Your task to perform on an android device: Open Google Maps Image 0: 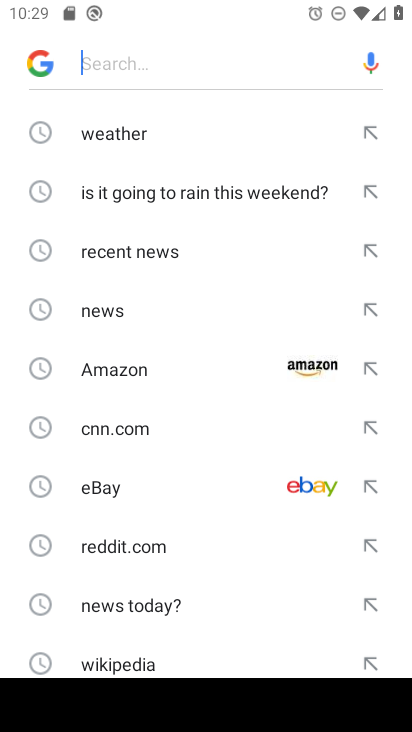
Step 0: press home button
Your task to perform on an android device: Open Google Maps Image 1: 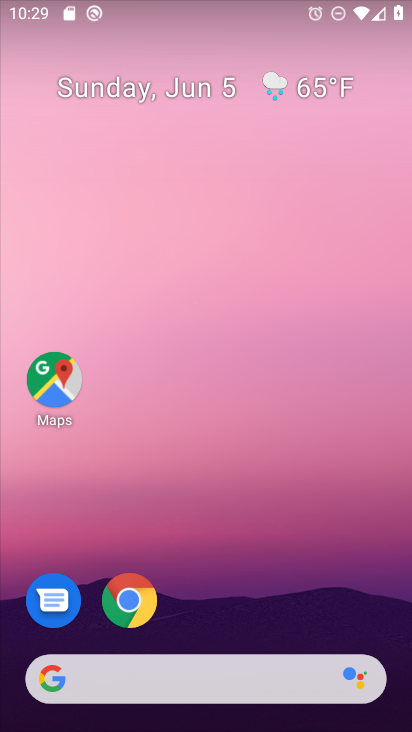
Step 1: drag from (411, 622) to (263, 38)
Your task to perform on an android device: Open Google Maps Image 2: 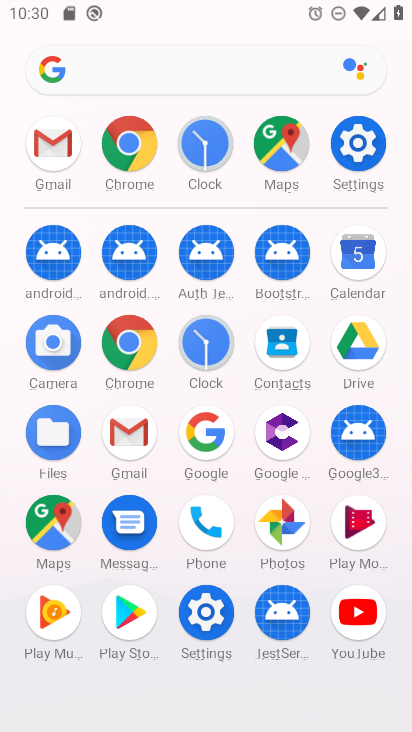
Step 2: click (48, 531)
Your task to perform on an android device: Open Google Maps Image 3: 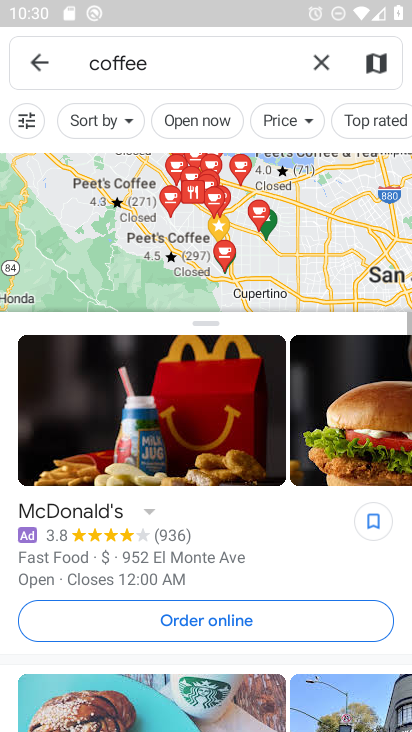
Step 3: click (317, 69)
Your task to perform on an android device: Open Google Maps Image 4: 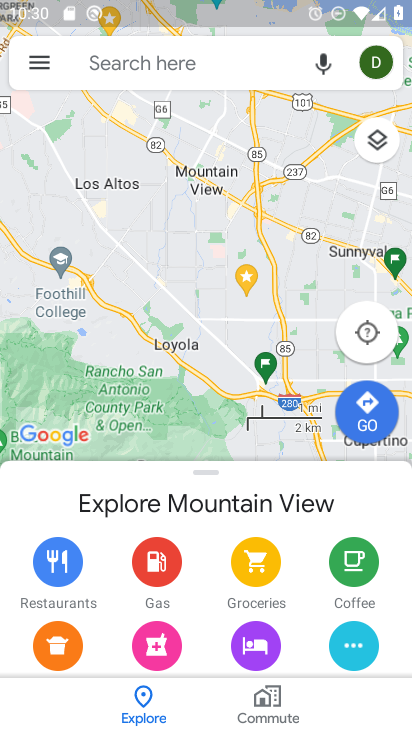
Step 4: task complete